Your task to perform on an android device: Find coffee shops on Maps Image 0: 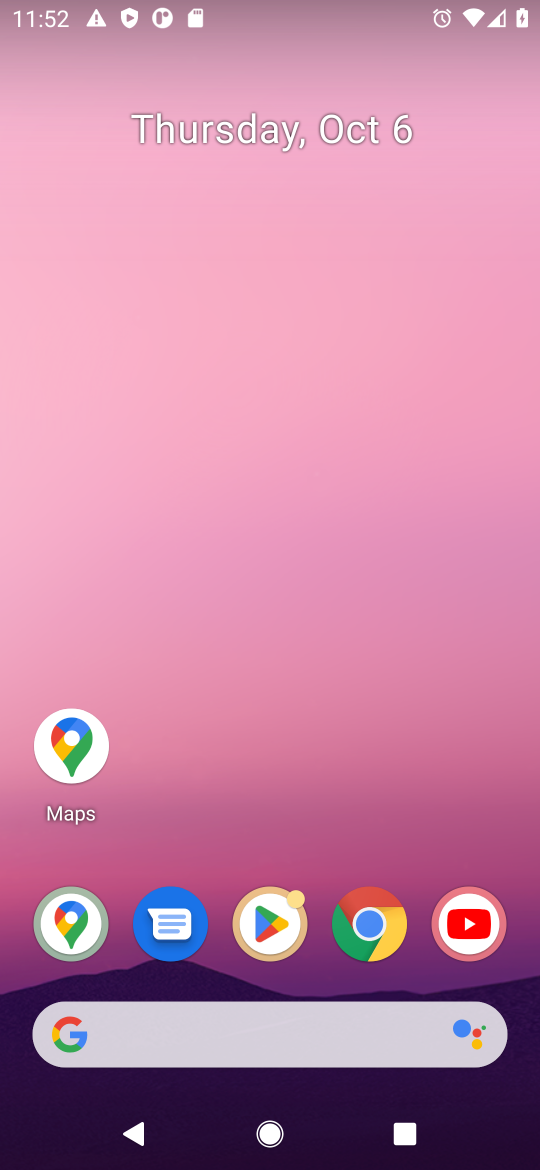
Step 0: click (66, 749)
Your task to perform on an android device: Find coffee shops on Maps Image 1: 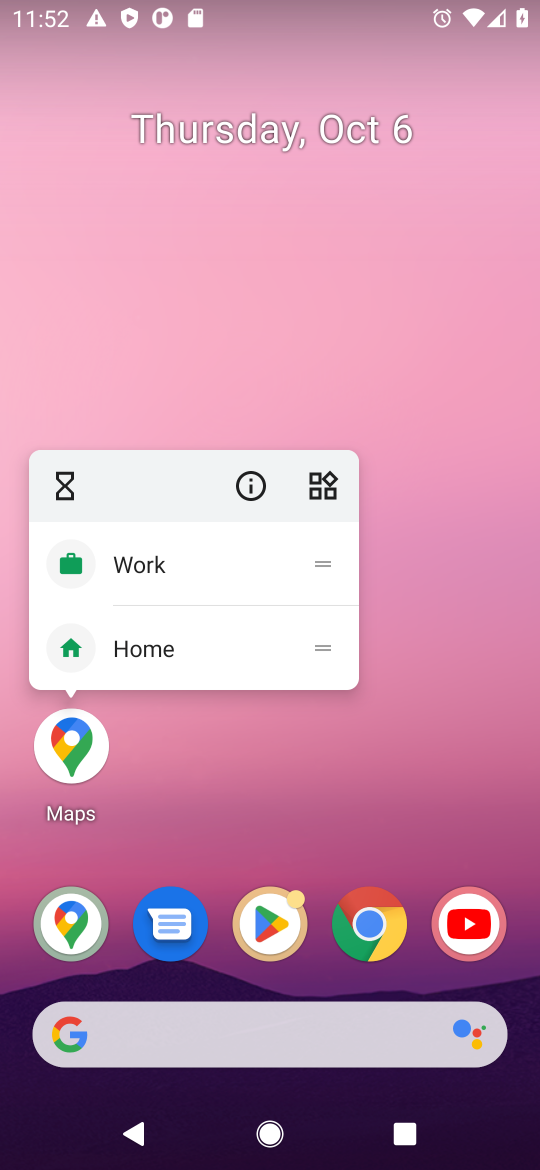
Step 1: click (66, 749)
Your task to perform on an android device: Find coffee shops on Maps Image 2: 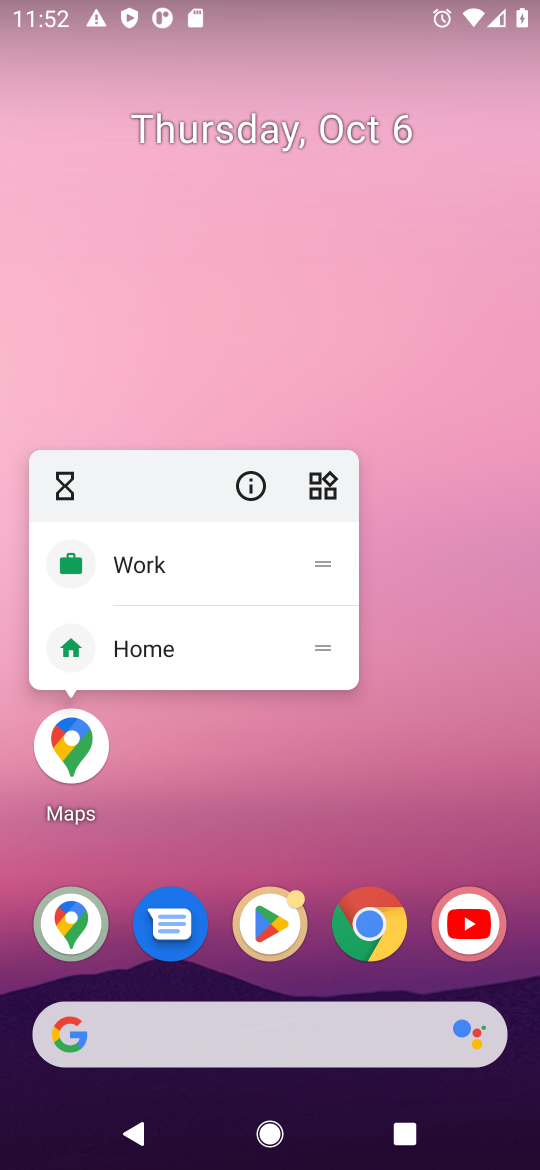
Step 2: click (66, 749)
Your task to perform on an android device: Find coffee shops on Maps Image 3: 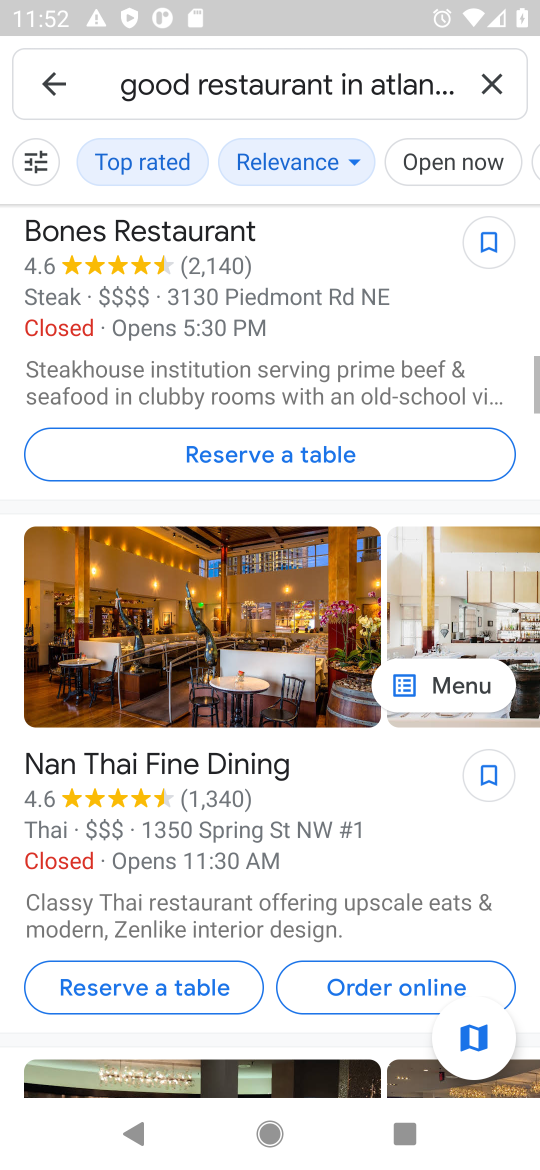
Step 3: click (484, 86)
Your task to perform on an android device: Find coffee shops on Maps Image 4: 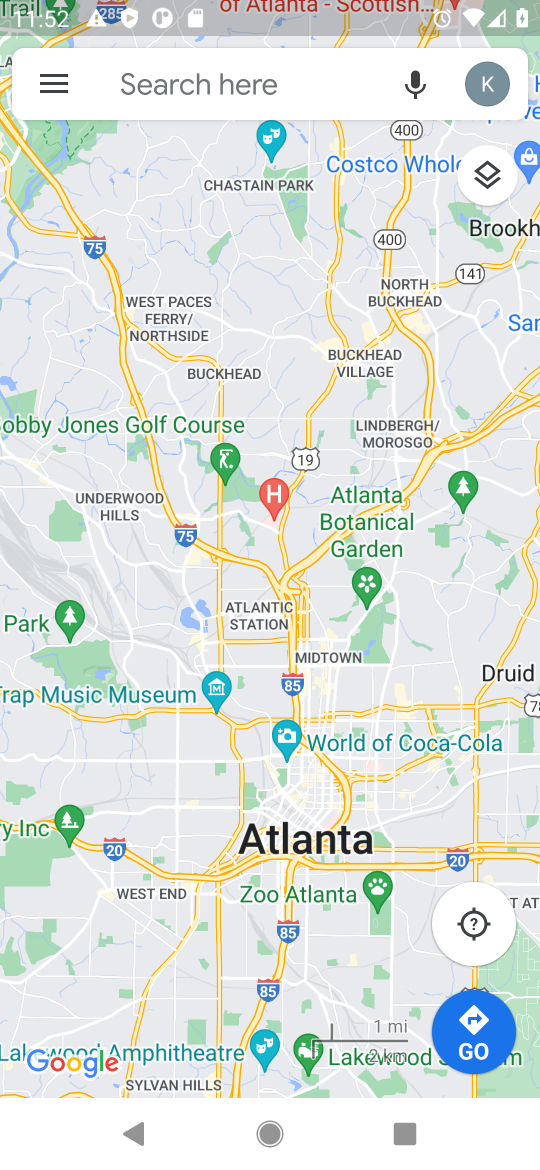
Step 4: click (161, 82)
Your task to perform on an android device: Find coffee shops on Maps Image 5: 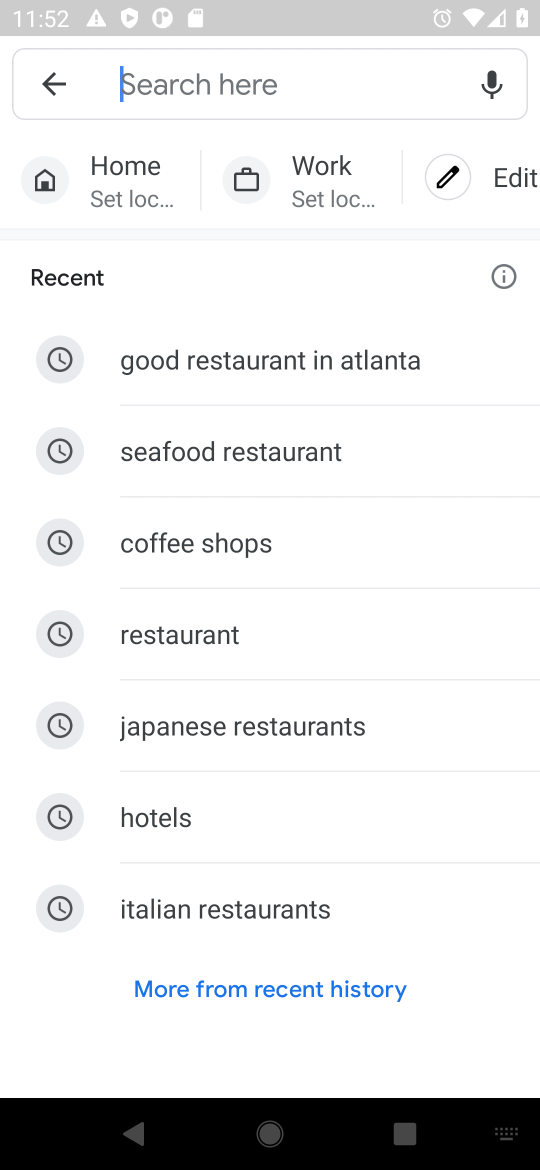
Step 5: type "coffee shops"
Your task to perform on an android device: Find coffee shops on Maps Image 6: 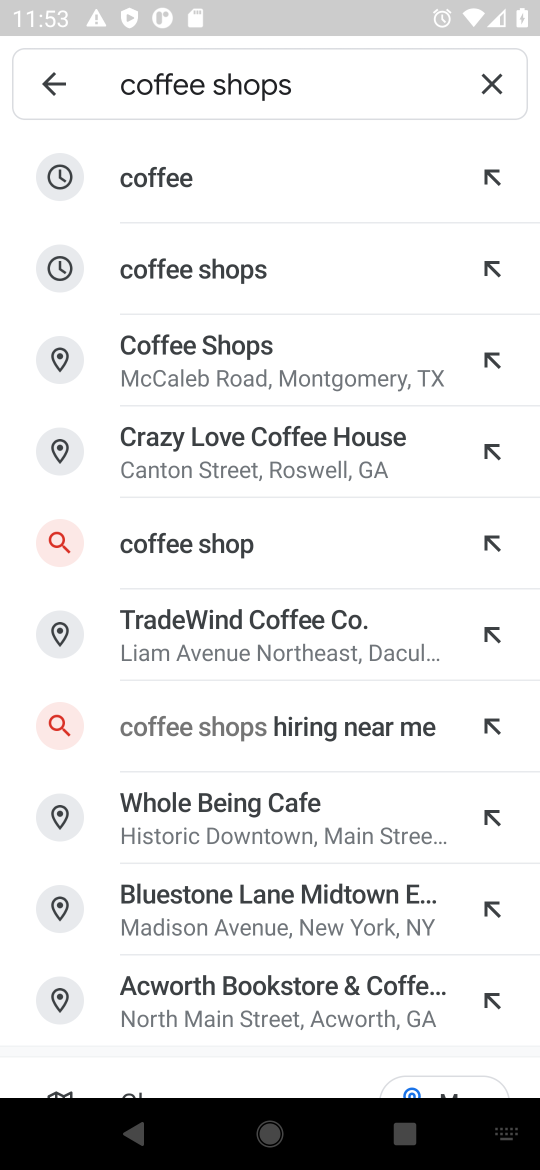
Step 6: click (153, 177)
Your task to perform on an android device: Find coffee shops on Maps Image 7: 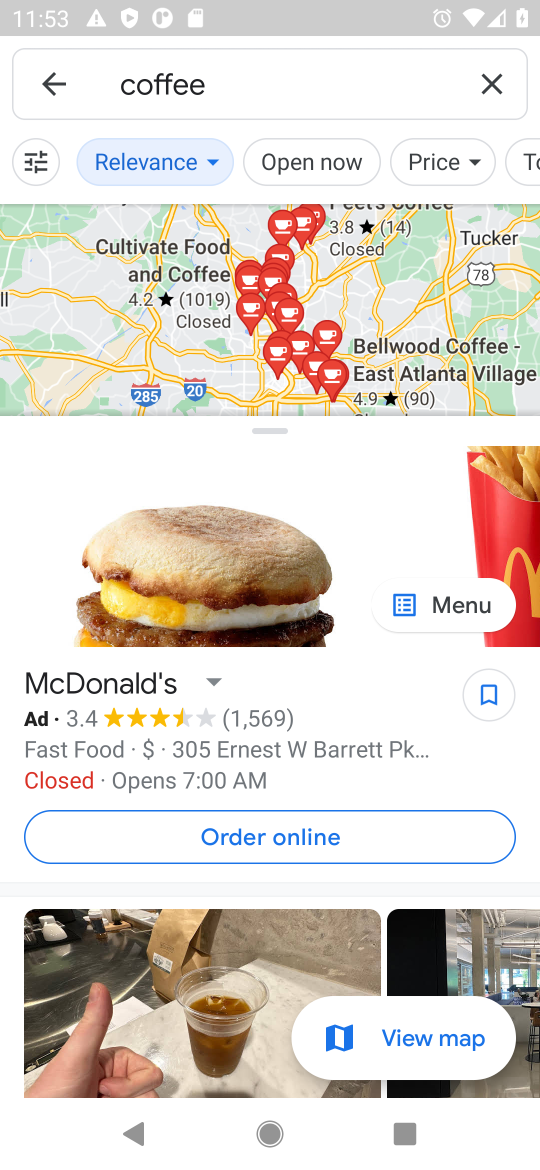
Step 7: task complete